Your task to perform on an android device: What's the news in Bangladesh? Image 0: 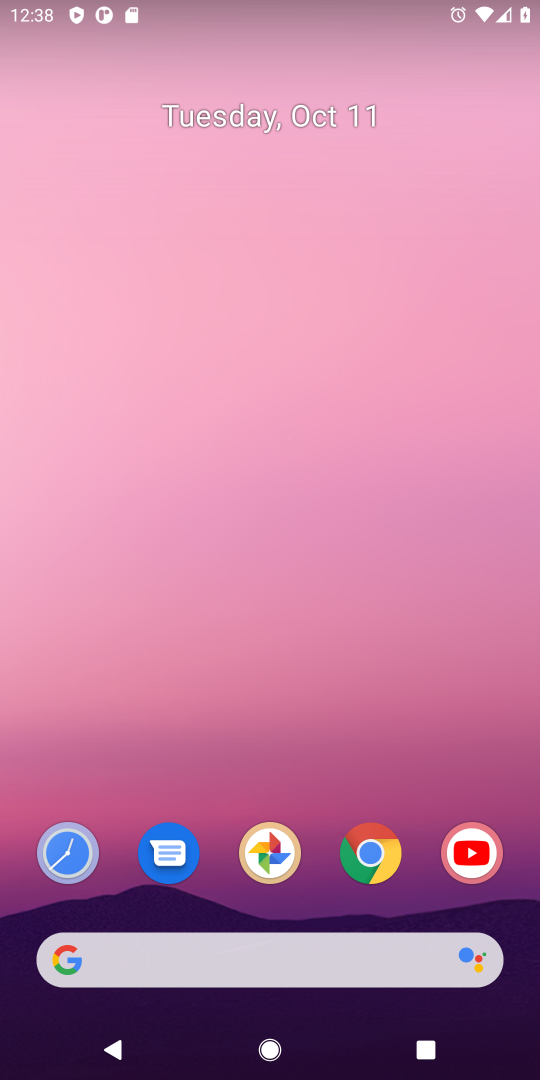
Step 0: drag from (312, 998) to (393, 21)
Your task to perform on an android device: What's the news in Bangladesh? Image 1: 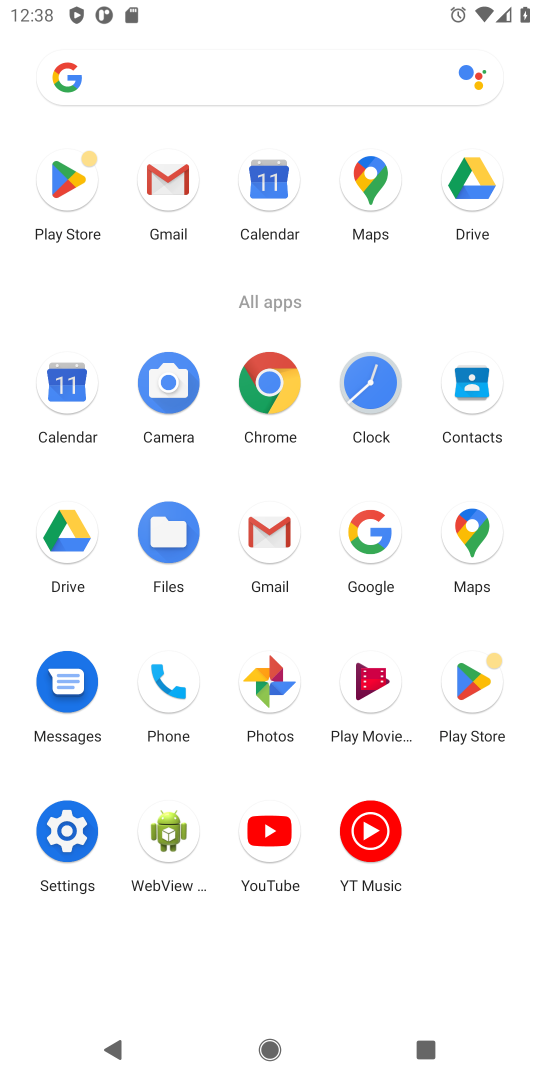
Step 1: click (261, 378)
Your task to perform on an android device: What's the news in Bangladesh? Image 2: 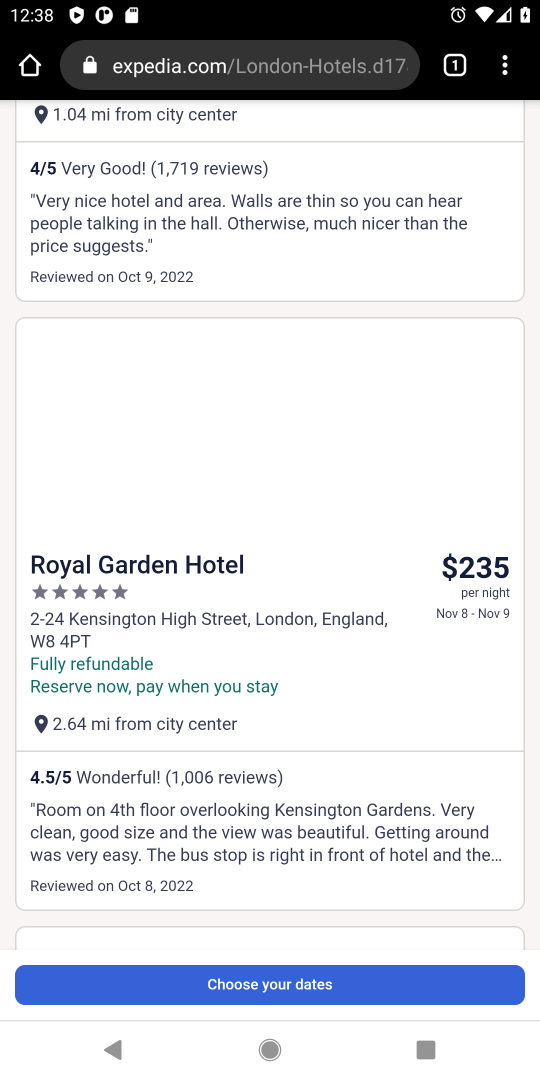
Step 2: click (239, 55)
Your task to perform on an android device: What's the news in Bangladesh? Image 3: 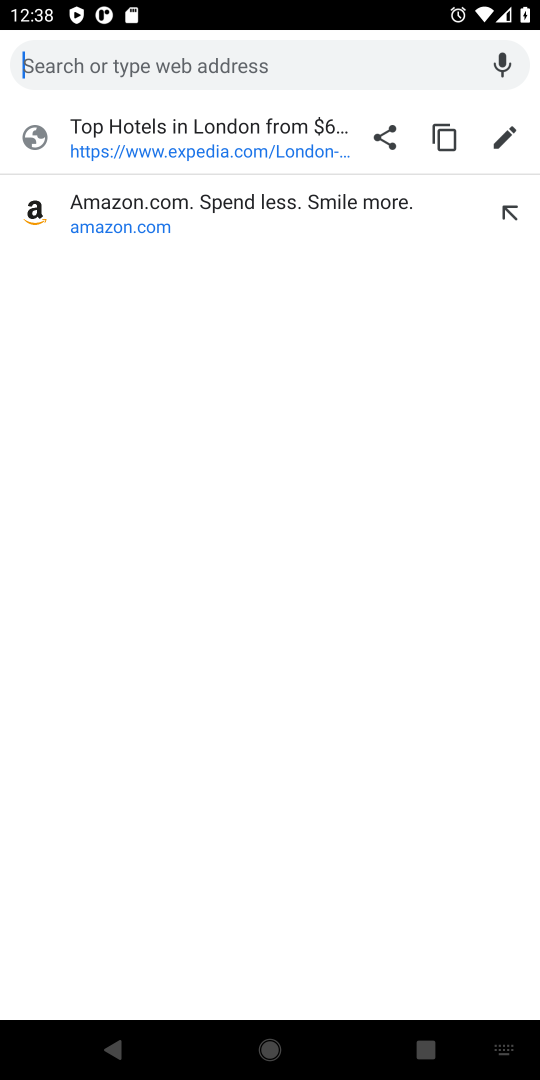
Step 3: type "What's the news in Bangladesh?"
Your task to perform on an android device: What's the news in Bangladesh? Image 4: 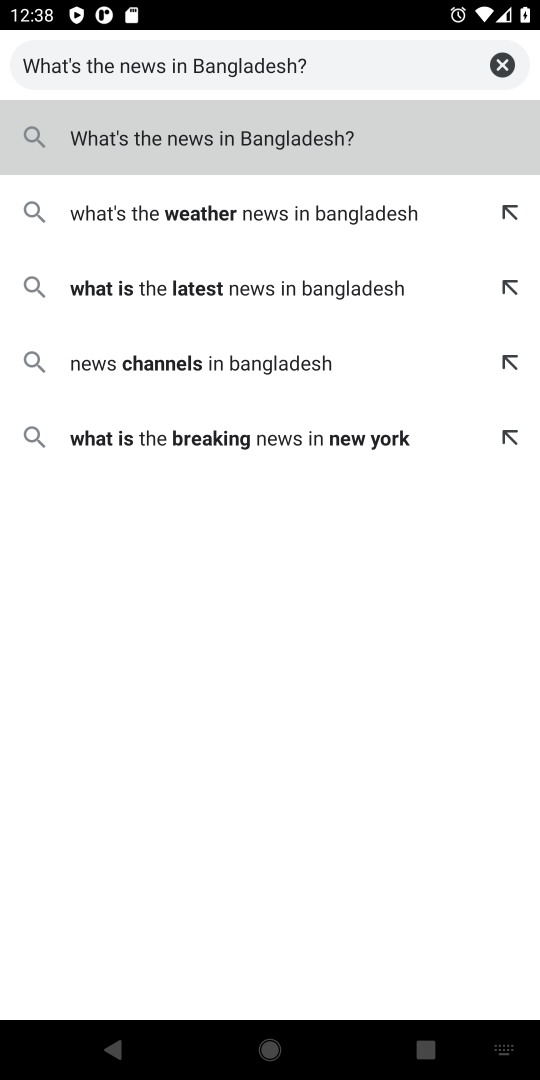
Step 4: type ""
Your task to perform on an android device: What's the news in Bangladesh? Image 5: 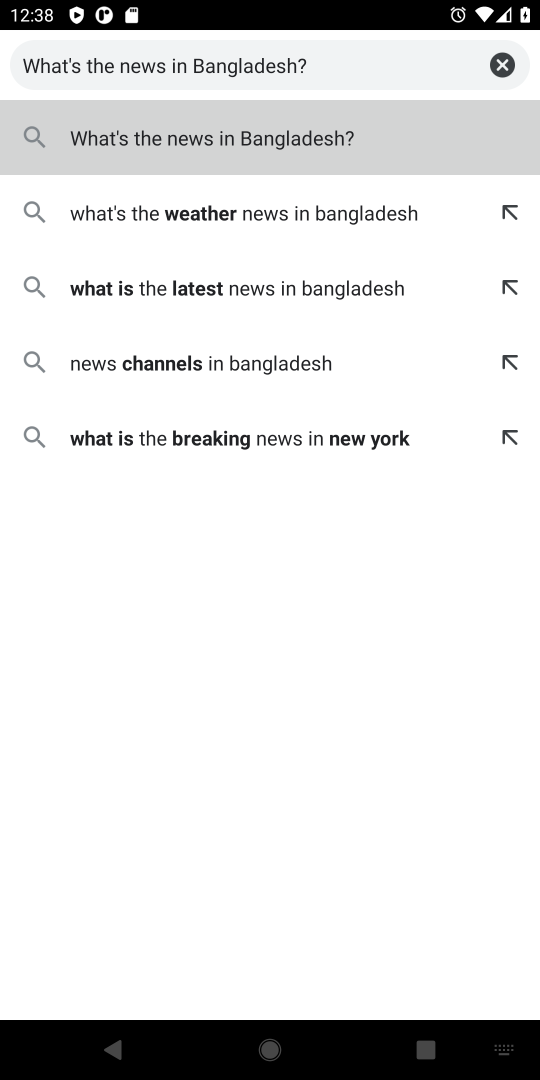
Step 5: press enter
Your task to perform on an android device: What's the news in Bangladesh? Image 6: 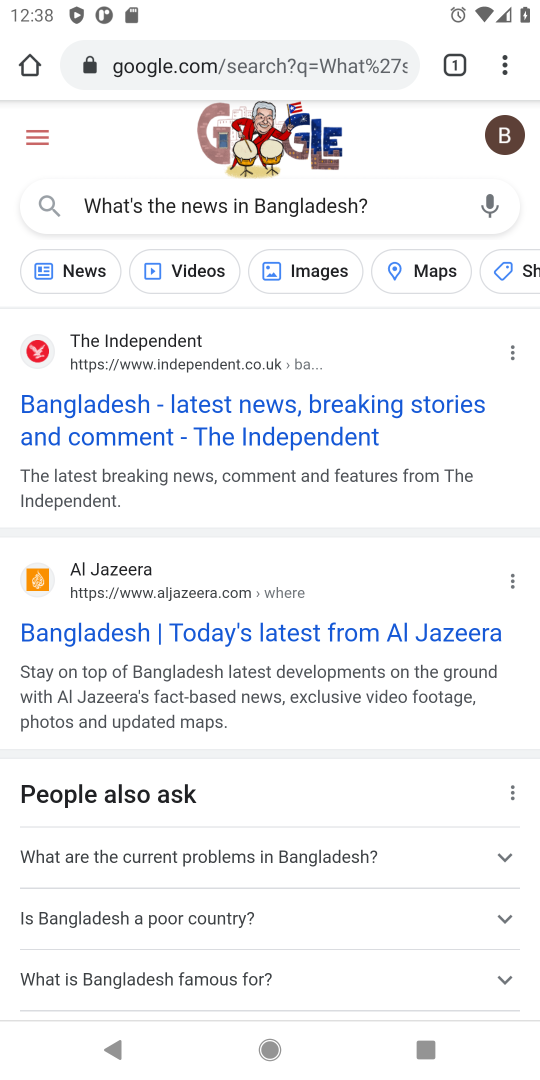
Step 6: click (426, 420)
Your task to perform on an android device: What's the news in Bangladesh? Image 7: 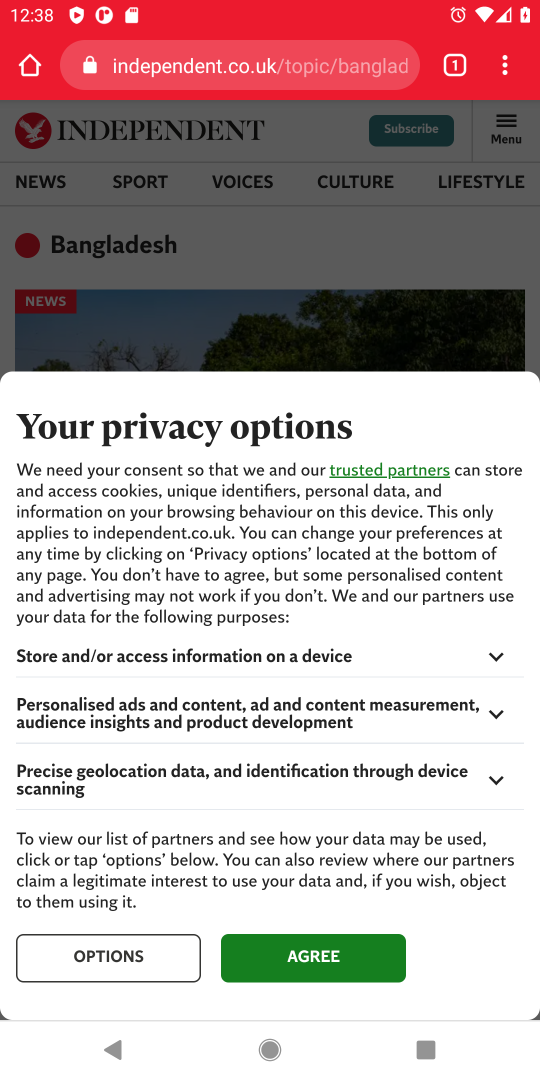
Step 7: click (320, 934)
Your task to perform on an android device: What's the news in Bangladesh? Image 8: 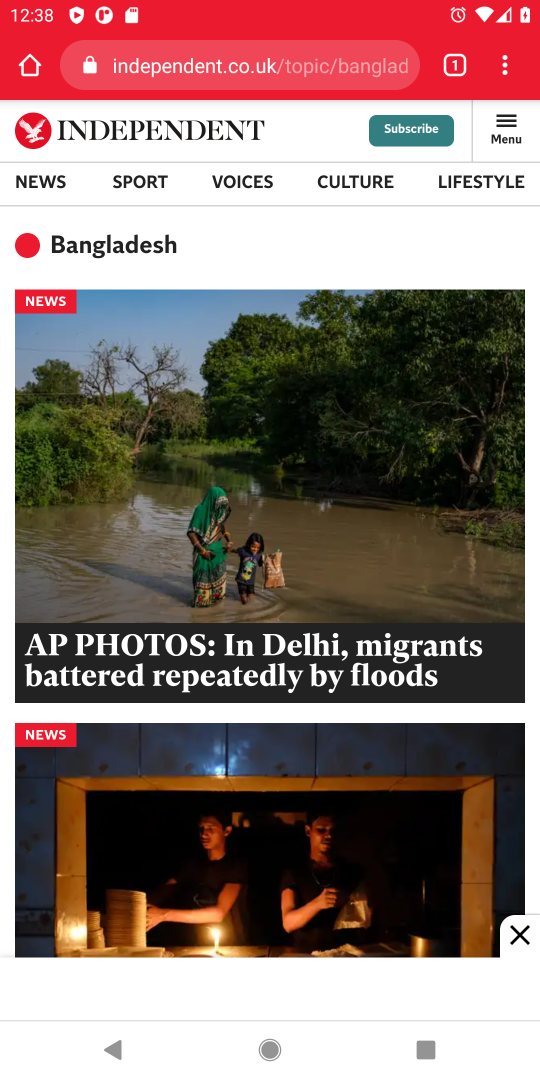
Step 8: drag from (335, 793) to (343, 58)
Your task to perform on an android device: What's the news in Bangladesh? Image 9: 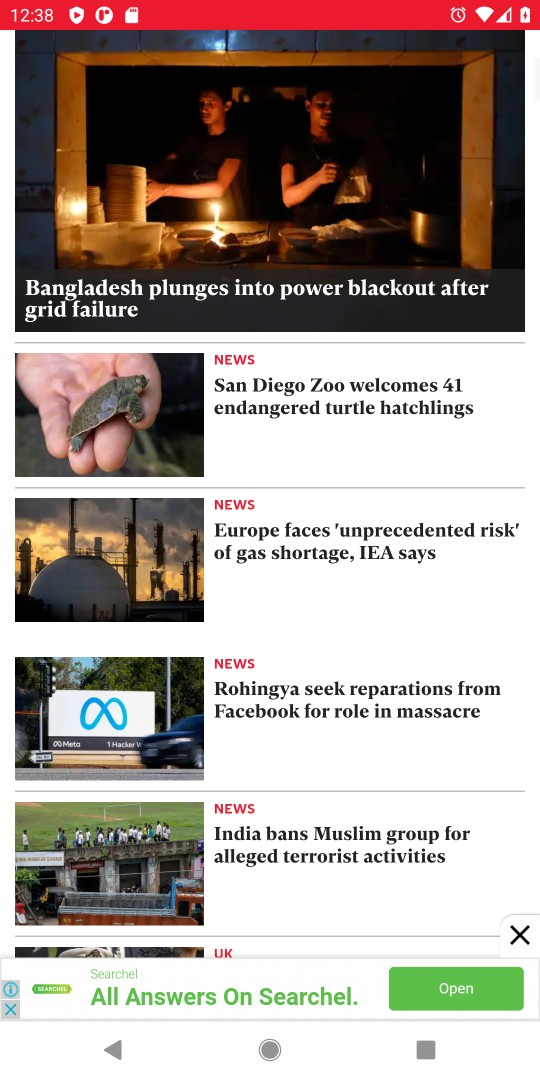
Step 9: drag from (302, 203) to (314, 148)
Your task to perform on an android device: What's the news in Bangladesh? Image 10: 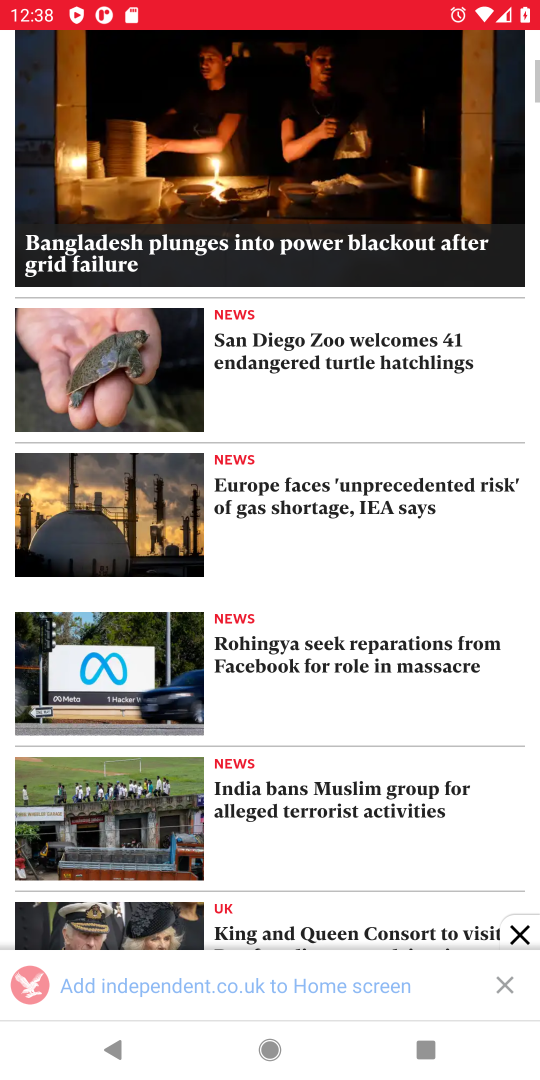
Step 10: drag from (290, 944) to (342, 187)
Your task to perform on an android device: What's the news in Bangladesh? Image 11: 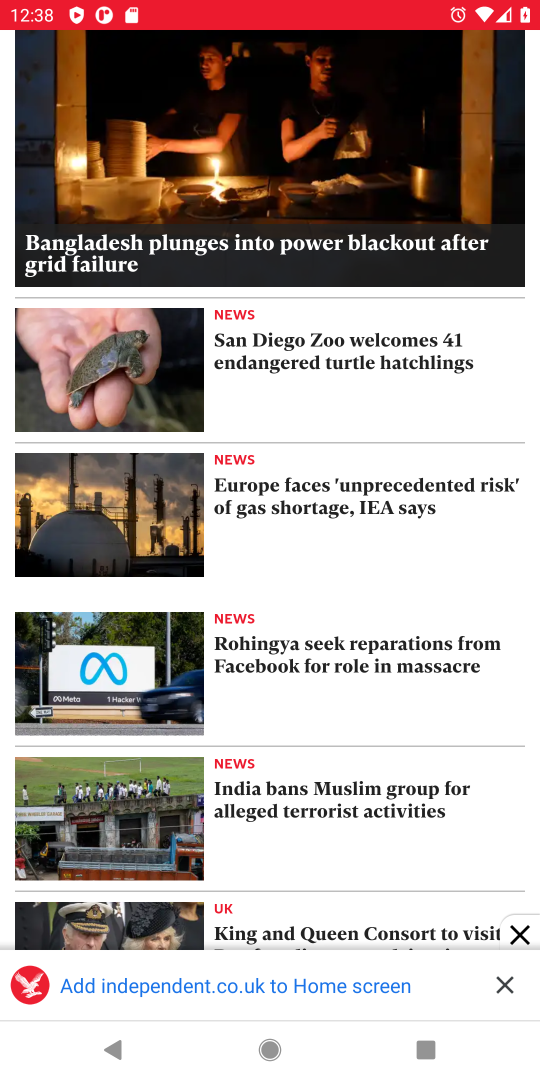
Step 11: drag from (310, 400) to (325, 181)
Your task to perform on an android device: What's the news in Bangladesh? Image 12: 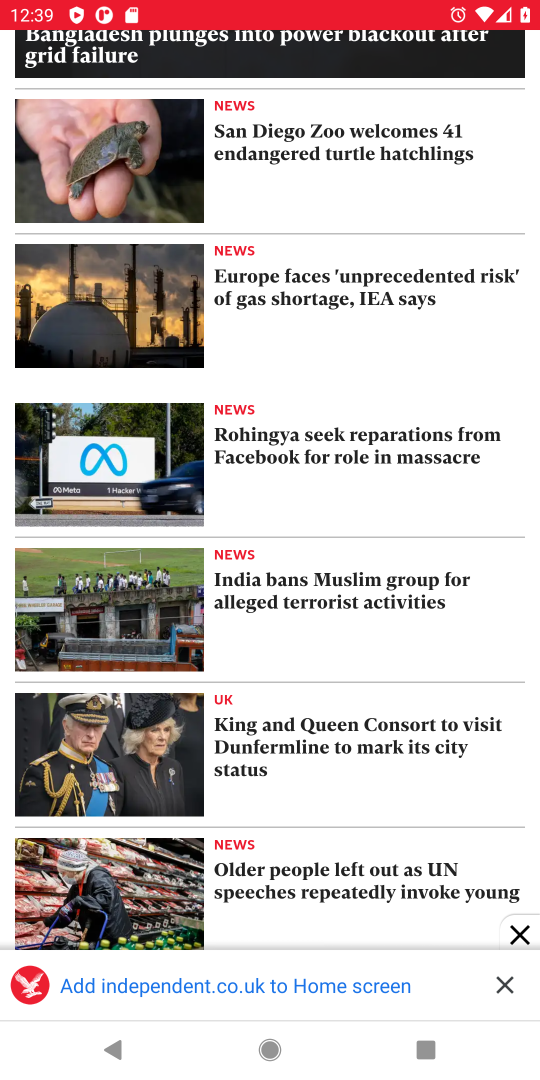
Step 12: drag from (296, 482) to (310, 292)
Your task to perform on an android device: What's the news in Bangladesh? Image 13: 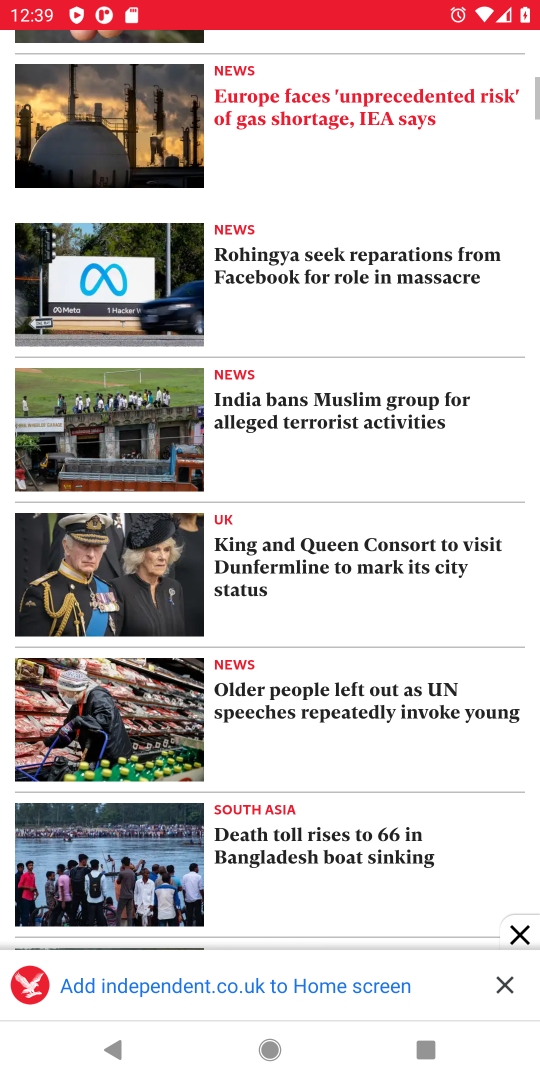
Step 13: drag from (273, 460) to (293, 318)
Your task to perform on an android device: What's the news in Bangladesh? Image 14: 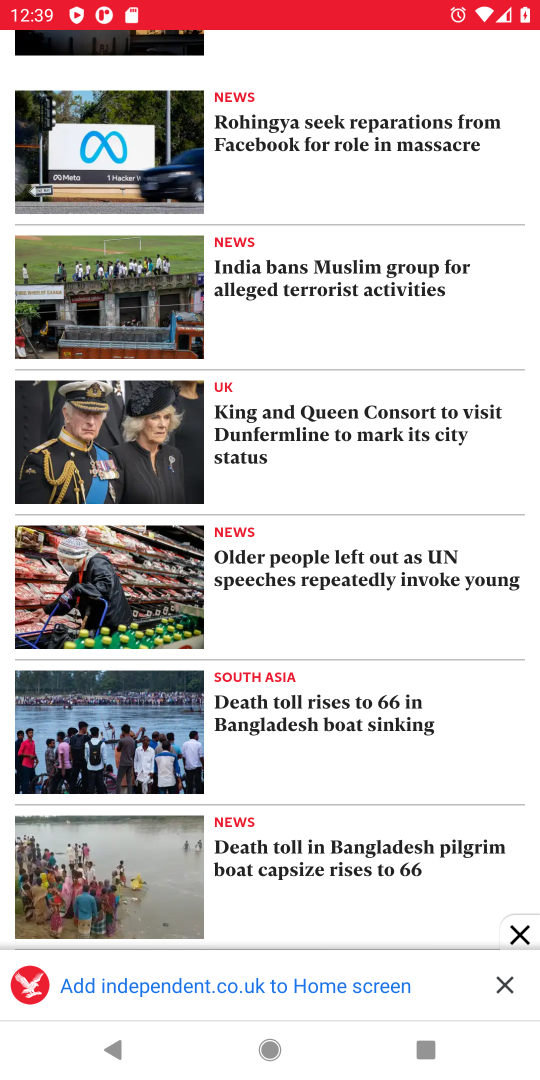
Step 14: drag from (428, 654) to (412, 149)
Your task to perform on an android device: What's the news in Bangladesh? Image 15: 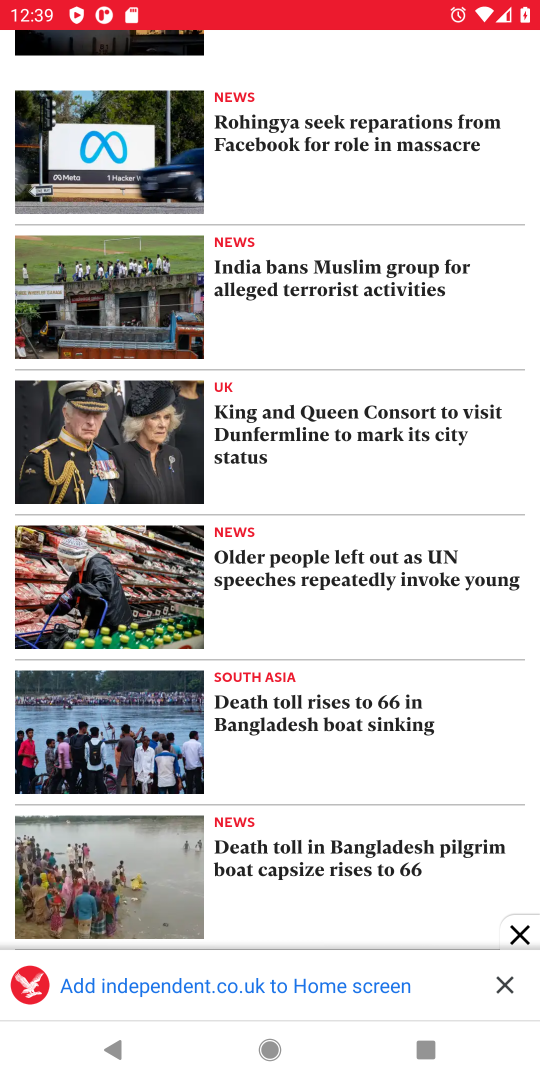
Step 15: drag from (419, 705) to (419, 161)
Your task to perform on an android device: What's the news in Bangladesh? Image 16: 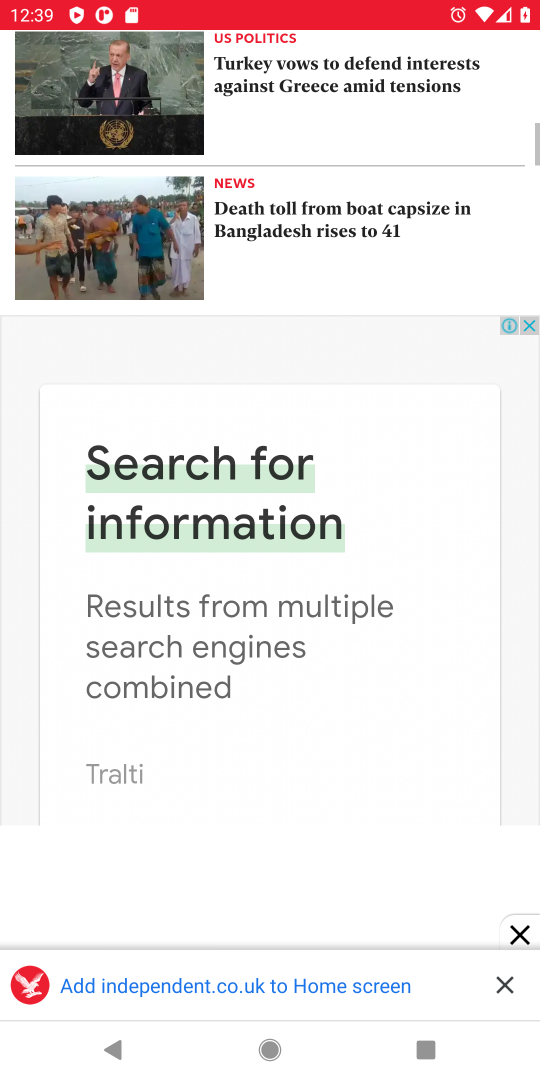
Step 16: drag from (350, 586) to (356, 218)
Your task to perform on an android device: What's the news in Bangladesh? Image 17: 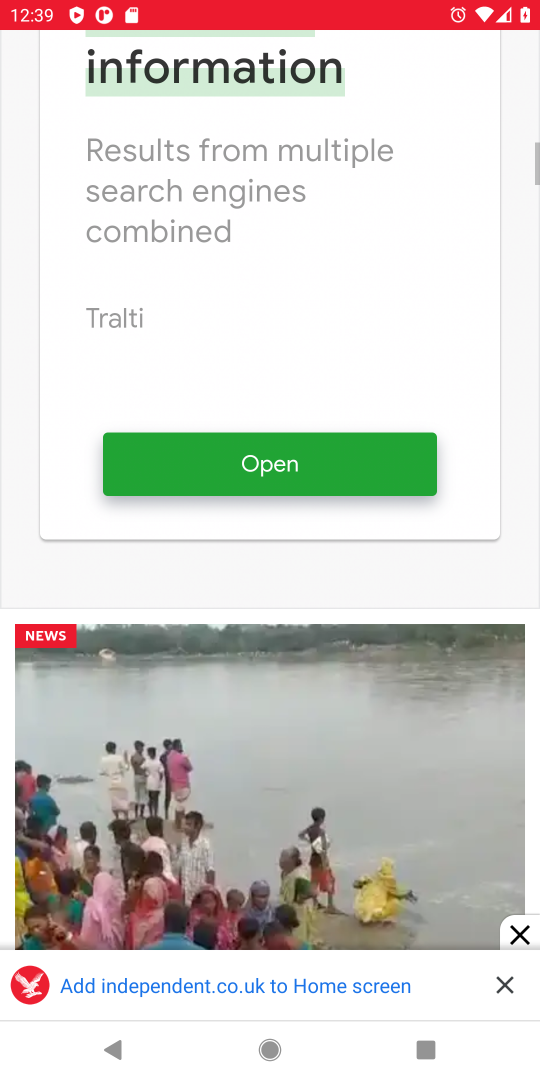
Step 17: drag from (325, 537) to (347, 188)
Your task to perform on an android device: What's the news in Bangladesh? Image 18: 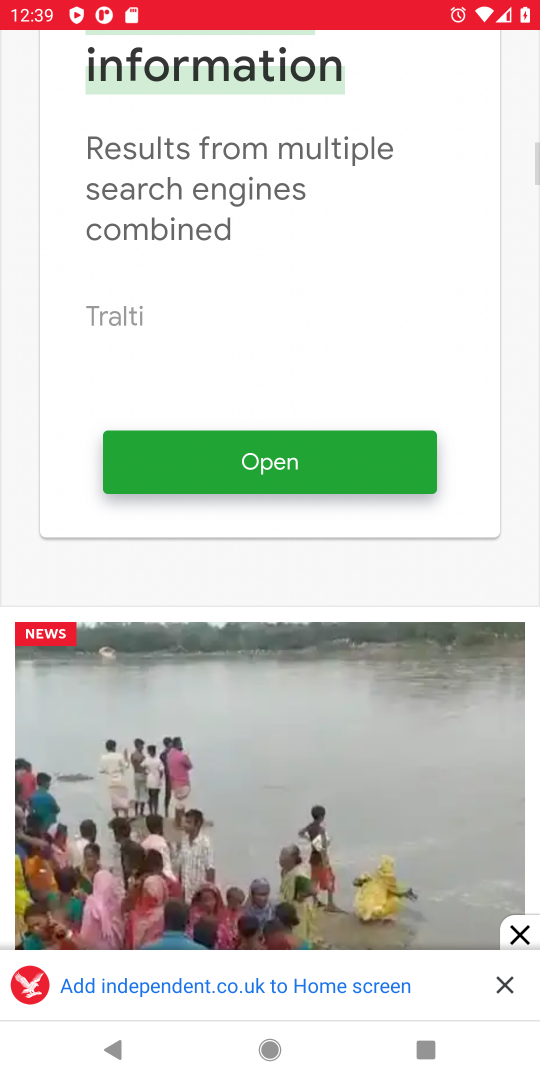
Step 18: drag from (307, 623) to (332, 127)
Your task to perform on an android device: What's the news in Bangladesh? Image 19: 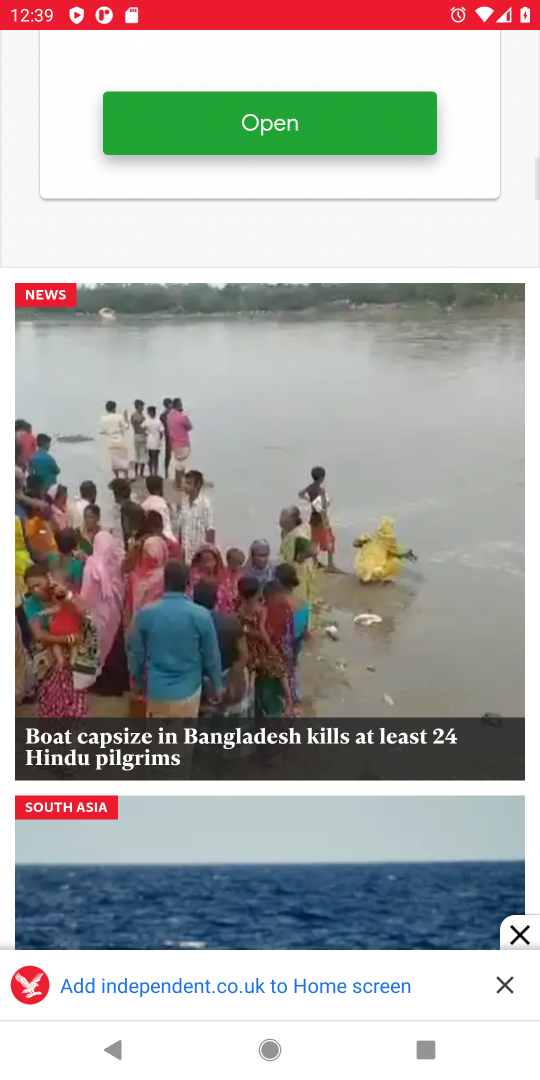
Step 19: drag from (295, 556) to (324, 297)
Your task to perform on an android device: What's the news in Bangladesh? Image 20: 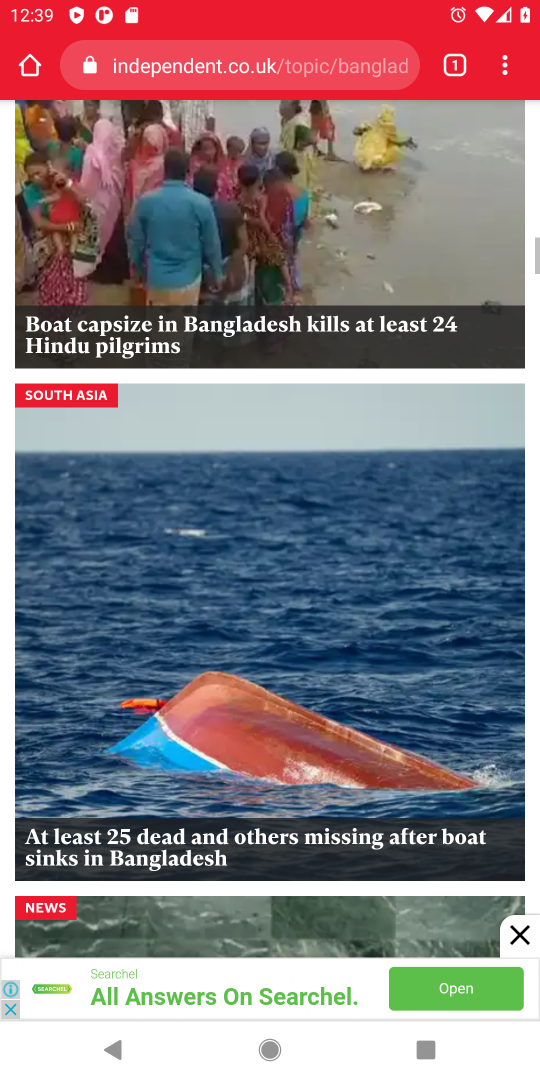
Step 20: click (292, 350)
Your task to perform on an android device: What's the news in Bangladesh? Image 21: 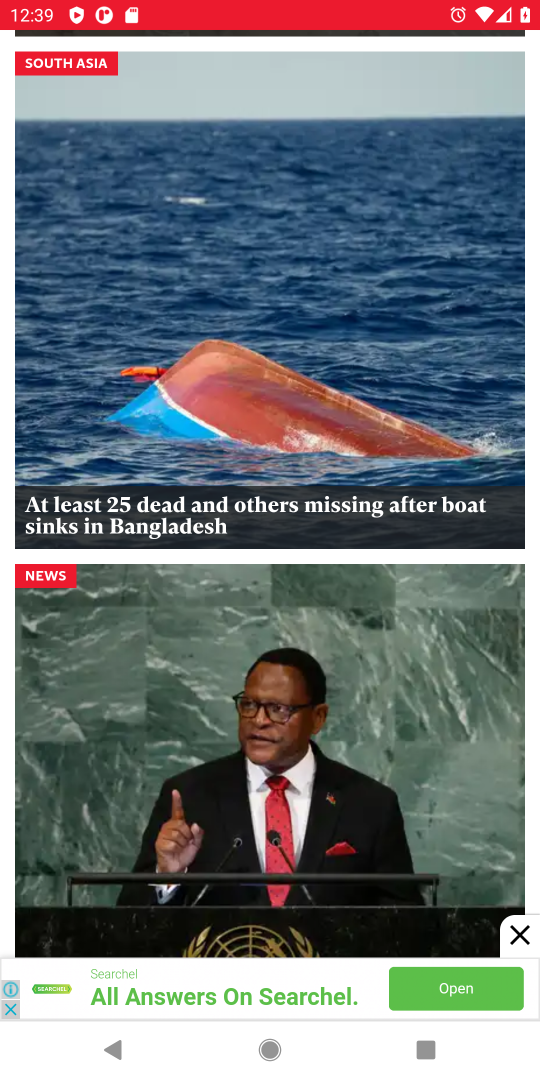
Step 21: drag from (425, 774) to (316, 253)
Your task to perform on an android device: What's the news in Bangladesh? Image 22: 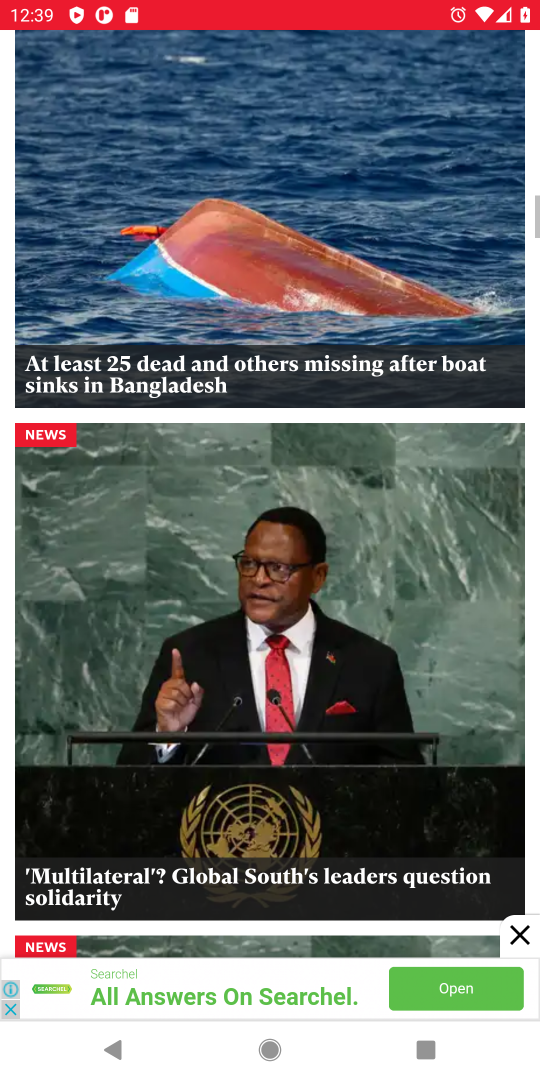
Step 22: click (353, 264)
Your task to perform on an android device: What's the news in Bangladesh? Image 23: 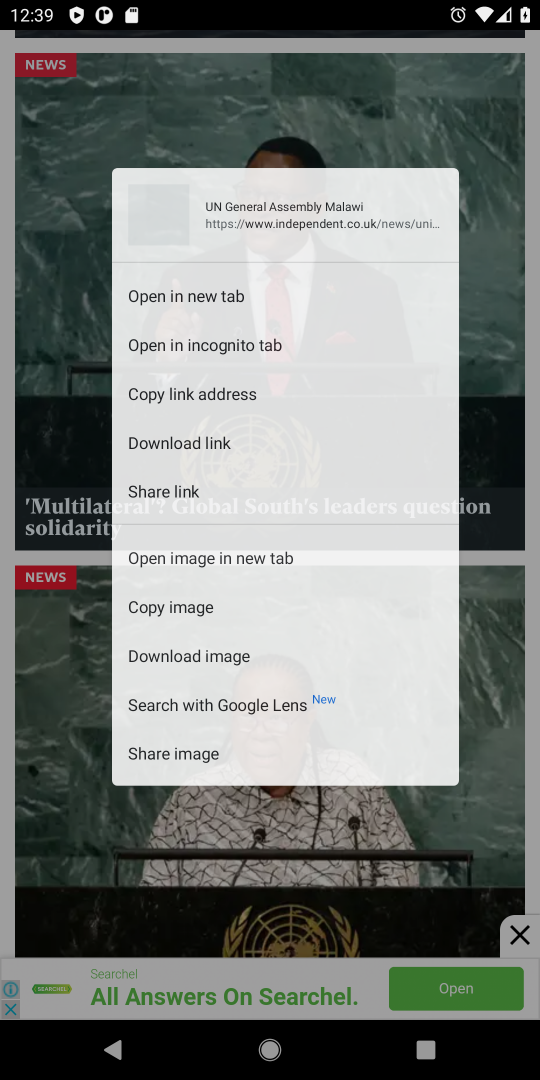
Step 23: drag from (389, 414) to (404, 206)
Your task to perform on an android device: What's the news in Bangladesh? Image 24: 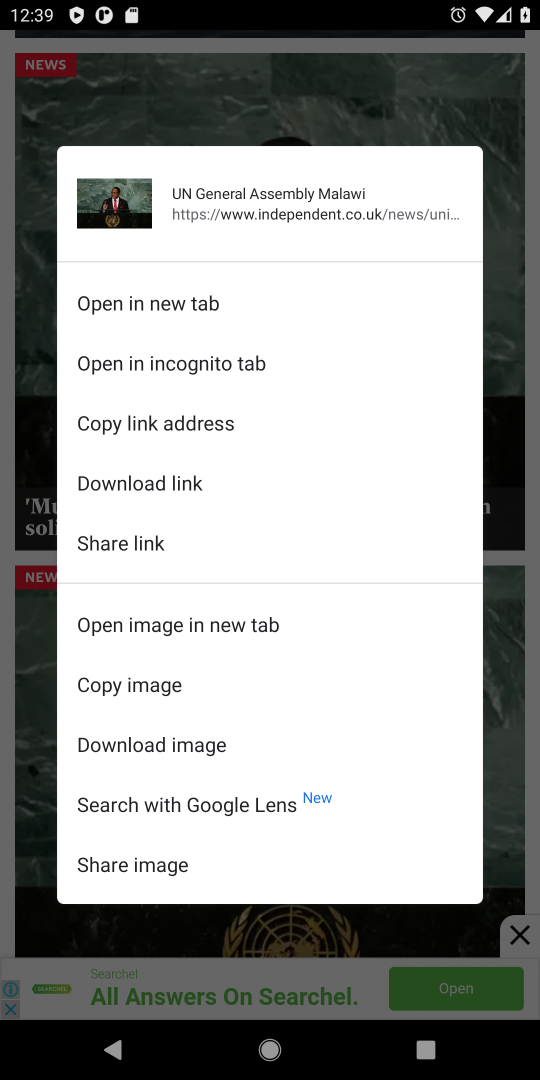
Step 24: click (532, 364)
Your task to perform on an android device: What's the news in Bangladesh? Image 25: 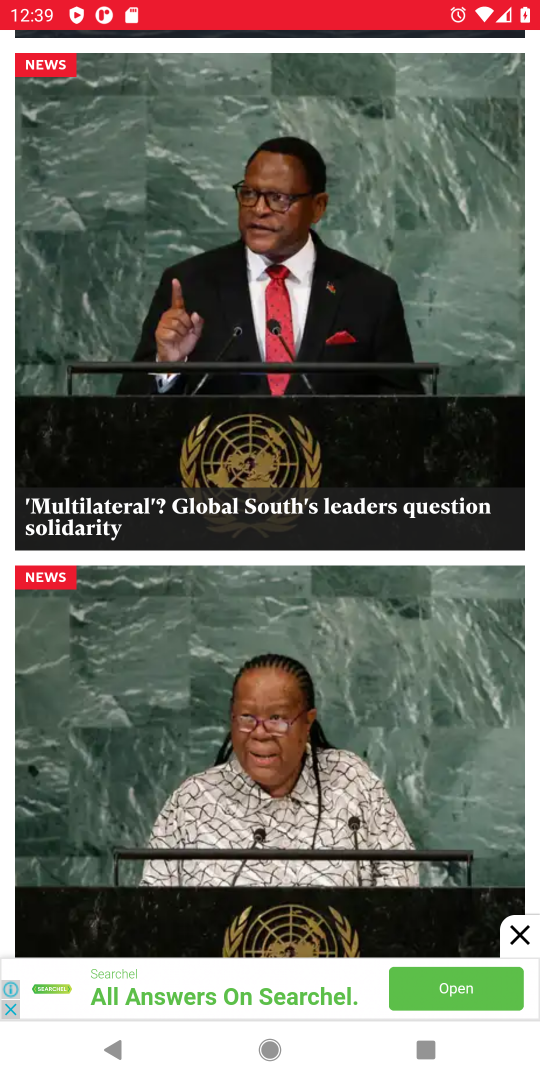
Step 25: click (352, 179)
Your task to perform on an android device: What's the news in Bangladesh? Image 26: 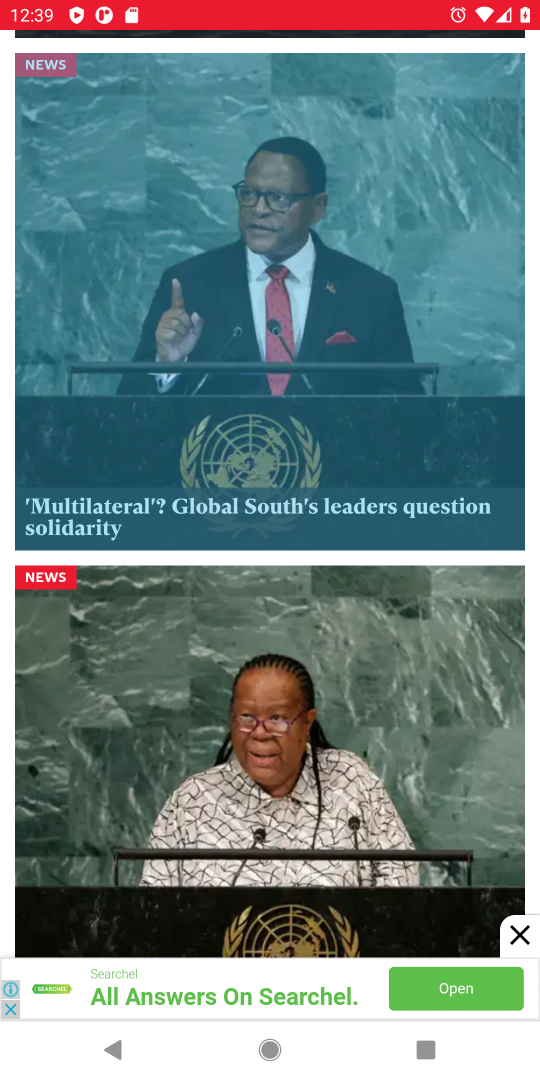
Step 26: drag from (362, 252) to (368, 148)
Your task to perform on an android device: What's the news in Bangladesh? Image 27: 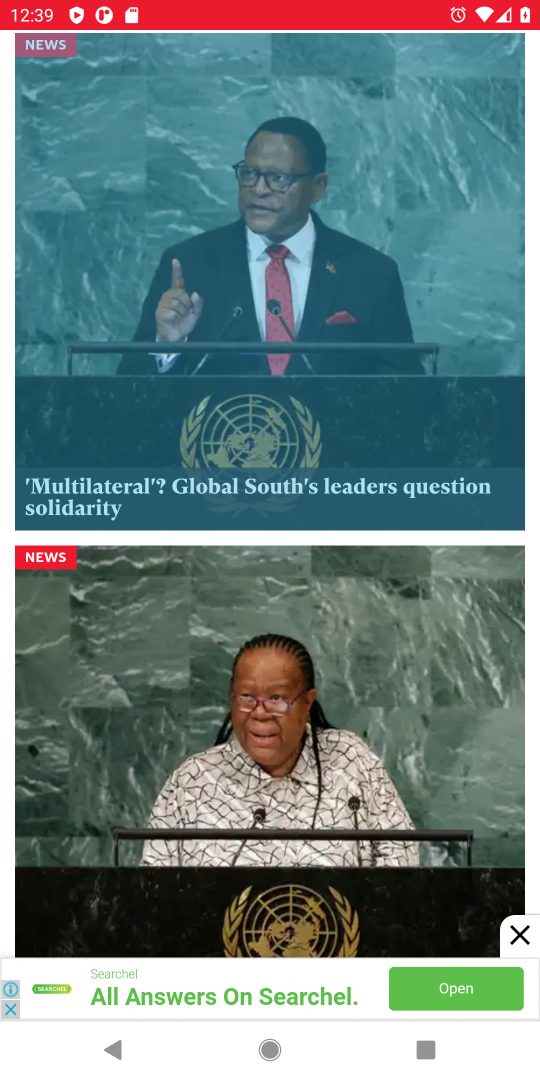
Step 27: drag from (305, 321) to (303, 267)
Your task to perform on an android device: What's the news in Bangladesh? Image 28: 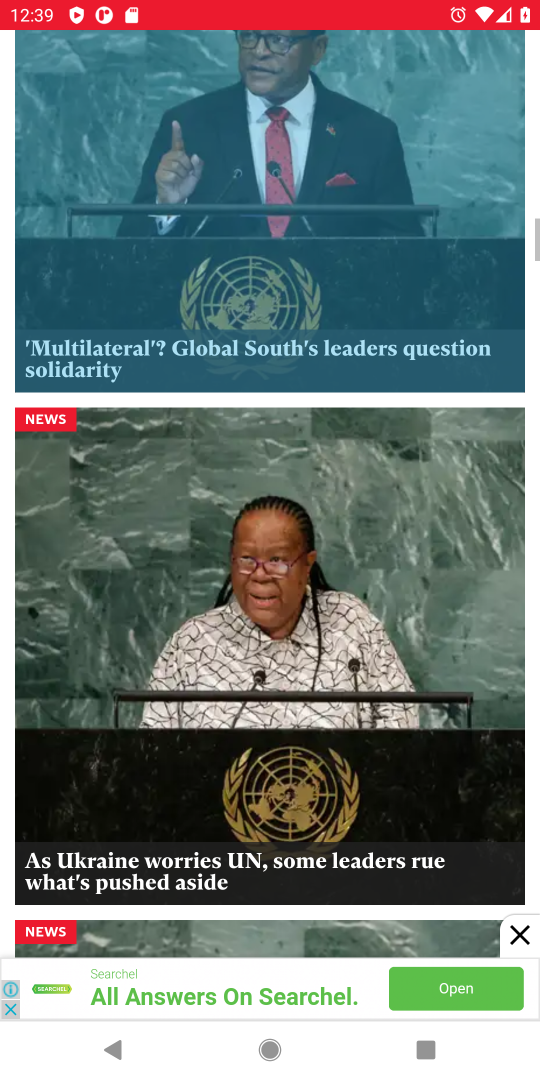
Step 28: press back button
Your task to perform on an android device: What's the news in Bangladesh? Image 29: 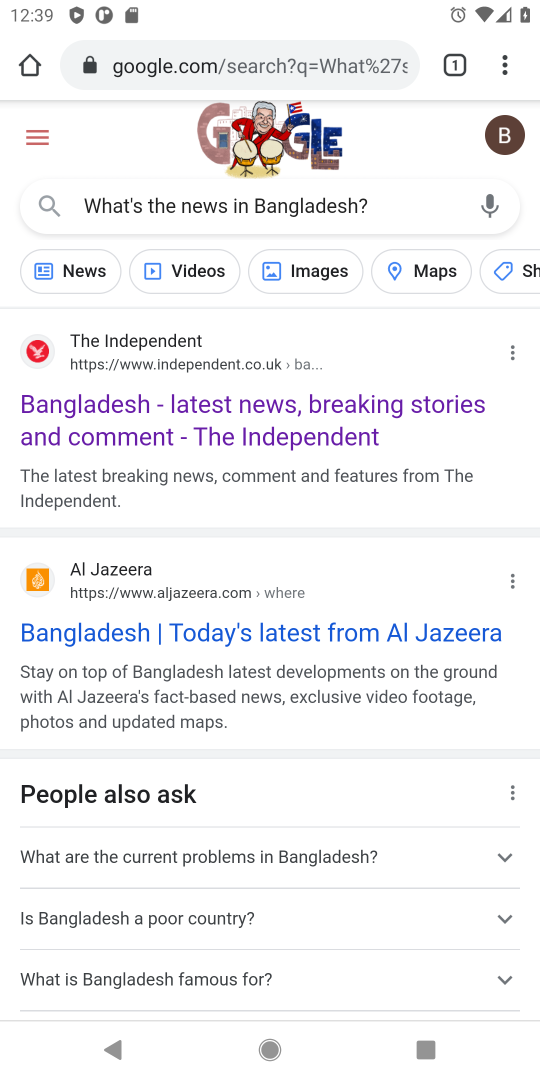
Step 29: click (376, 633)
Your task to perform on an android device: What's the news in Bangladesh? Image 30: 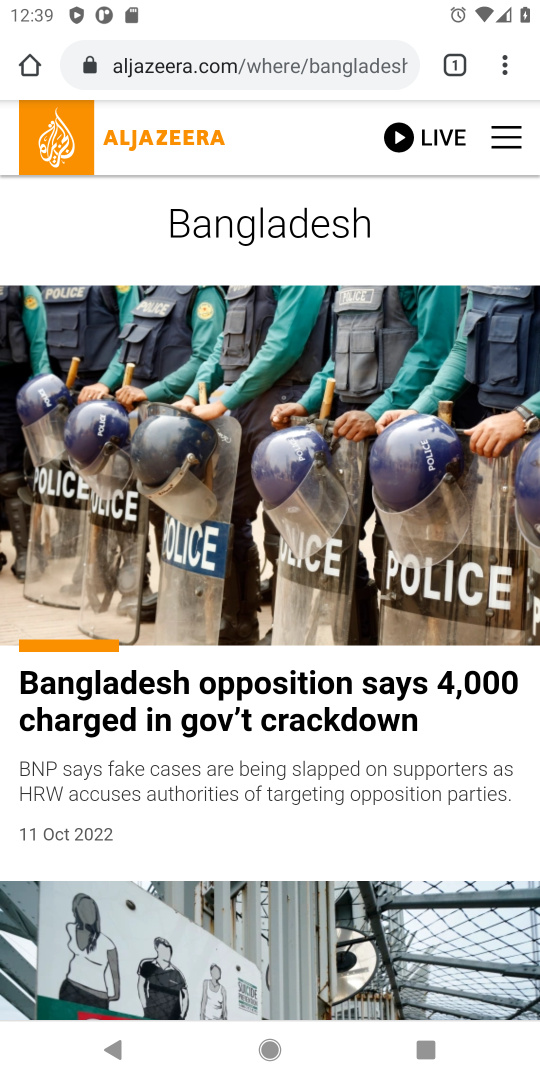
Step 30: task complete